Your task to perform on an android device: see sites visited before in the chrome app Image 0: 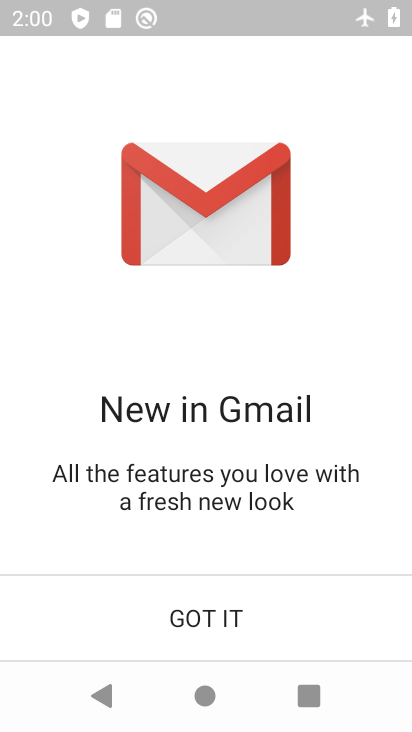
Step 0: click (224, 615)
Your task to perform on an android device: see sites visited before in the chrome app Image 1: 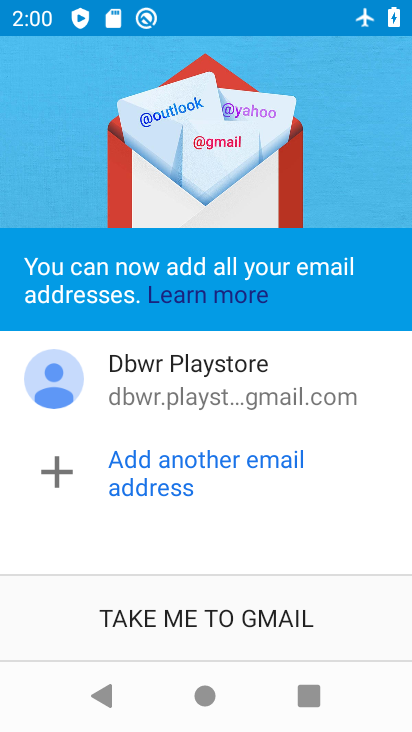
Step 1: press back button
Your task to perform on an android device: see sites visited before in the chrome app Image 2: 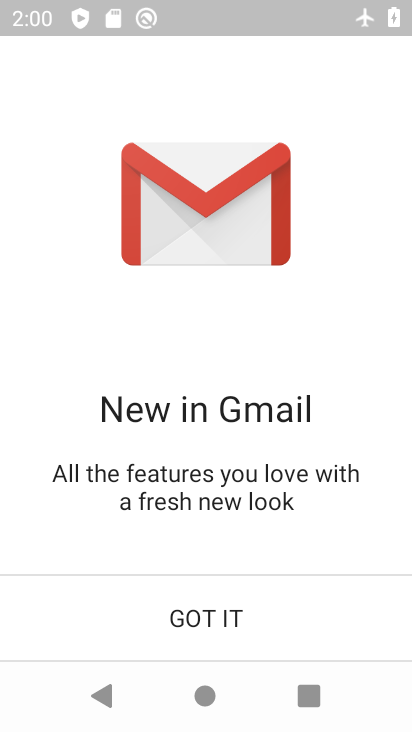
Step 2: click (203, 613)
Your task to perform on an android device: see sites visited before in the chrome app Image 3: 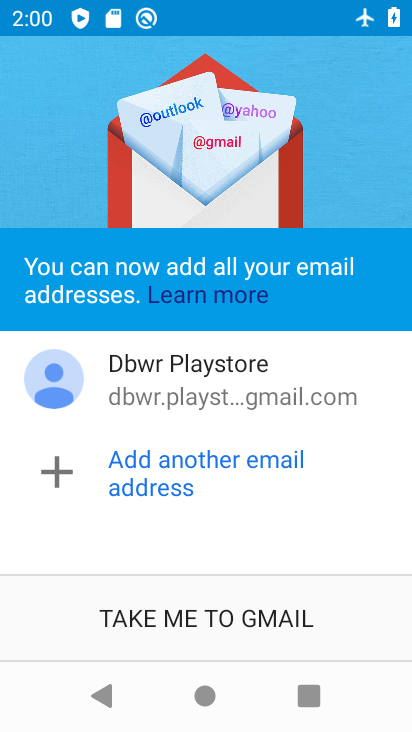
Step 3: press back button
Your task to perform on an android device: see sites visited before in the chrome app Image 4: 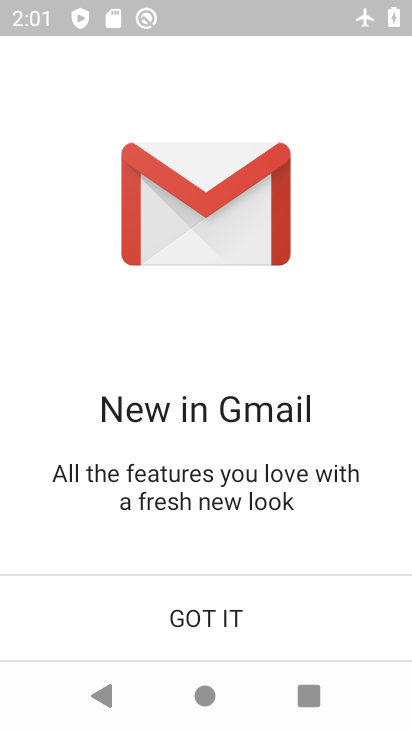
Step 4: click (198, 615)
Your task to perform on an android device: see sites visited before in the chrome app Image 5: 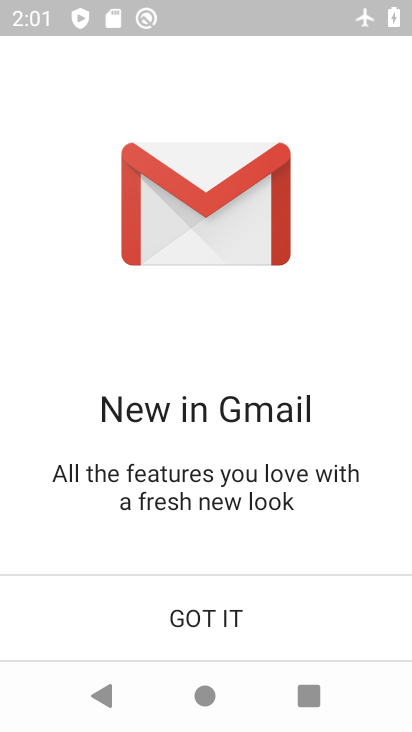
Step 5: click (198, 615)
Your task to perform on an android device: see sites visited before in the chrome app Image 6: 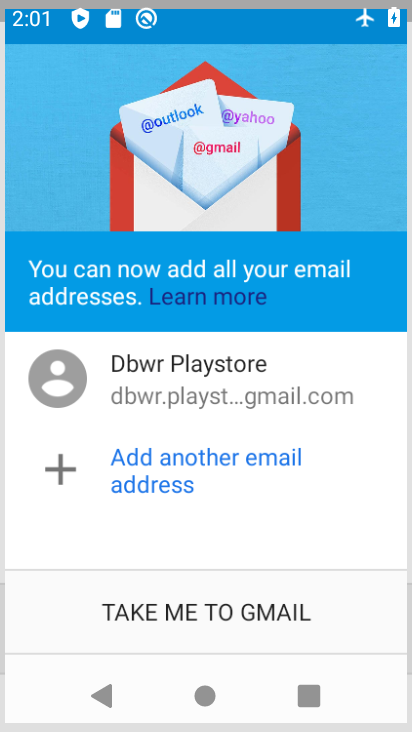
Step 6: click (199, 615)
Your task to perform on an android device: see sites visited before in the chrome app Image 7: 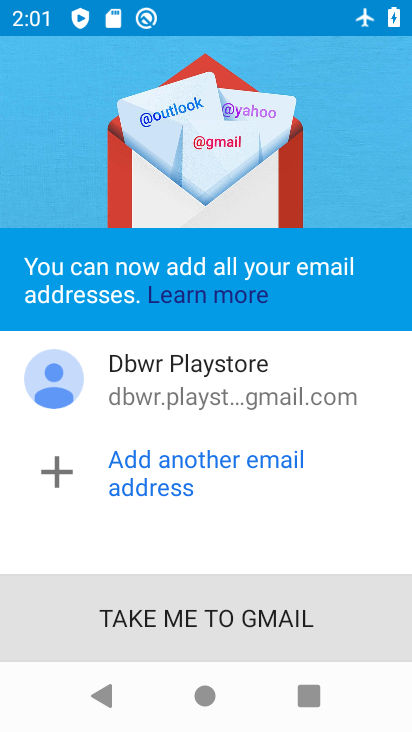
Step 7: click (203, 613)
Your task to perform on an android device: see sites visited before in the chrome app Image 8: 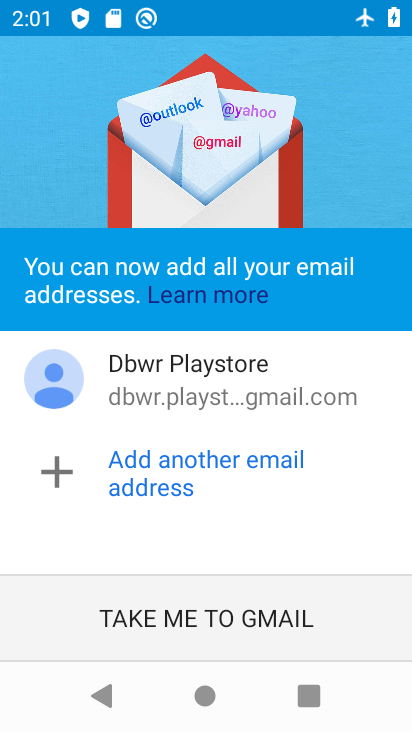
Step 8: click (205, 609)
Your task to perform on an android device: see sites visited before in the chrome app Image 9: 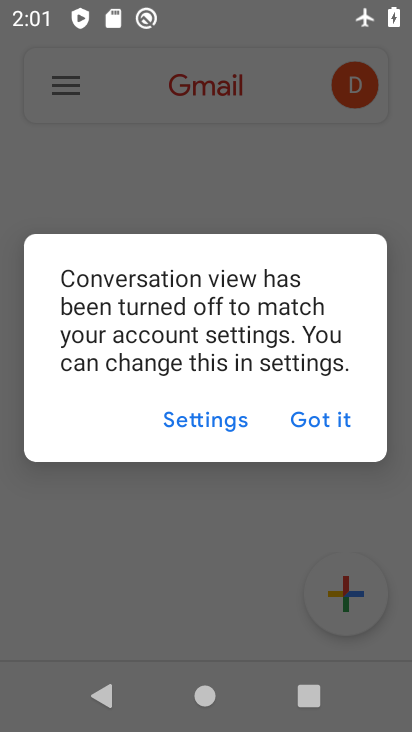
Step 9: click (318, 417)
Your task to perform on an android device: see sites visited before in the chrome app Image 10: 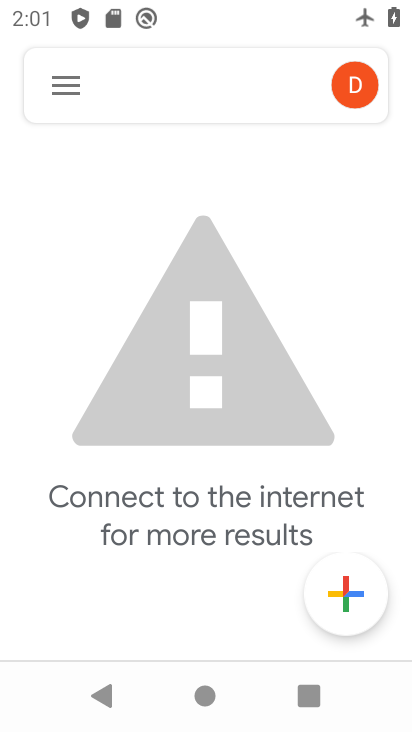
Step 10: press back button
Your task to perform on an android device: see sites visited before in the chrome app Image 11: 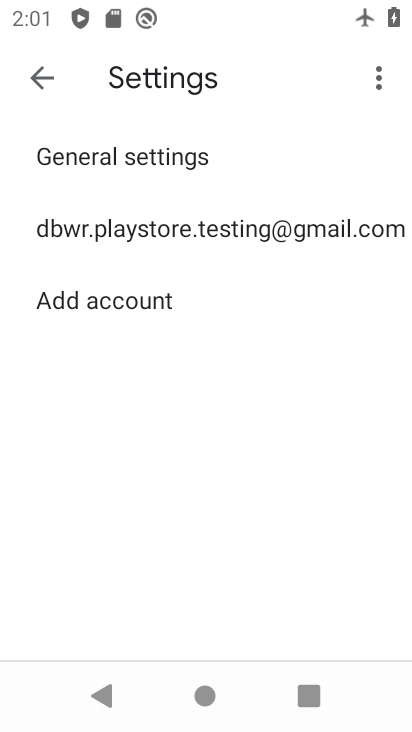
Step 11: press home button
Your task to perform on an android device: see sites visited before in the chrome app Image 12: 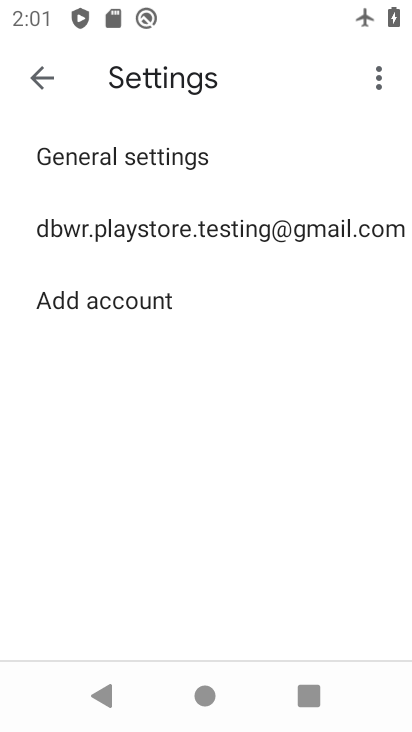
Step 12: press home button
Your task to perform on an android device: see sites visited before in the chrome app Image 13: 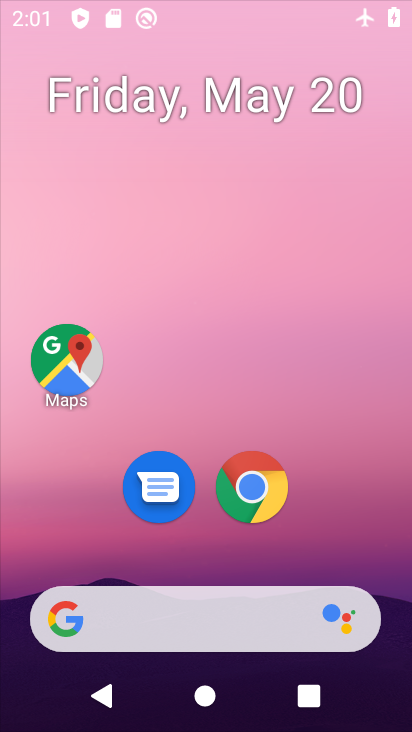
Step 13: press home button
Your task to perform on an android device: see sites visited before in the chrome app Image 14: 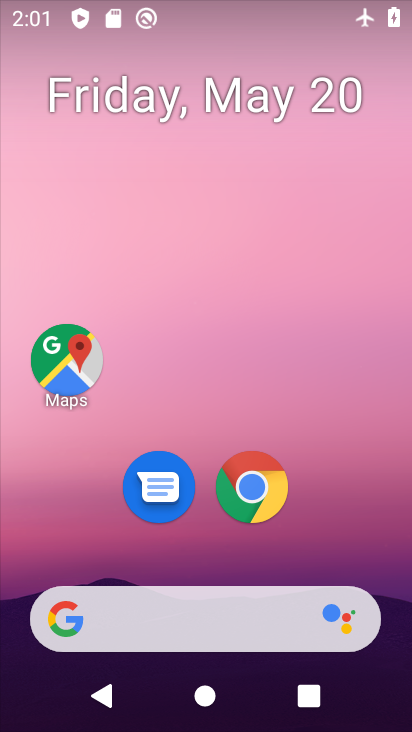
Step 14: drag from (242, 682) to (125, 57)
Your task to perform on an android device: see sites visited before in the chrome app Image 15: 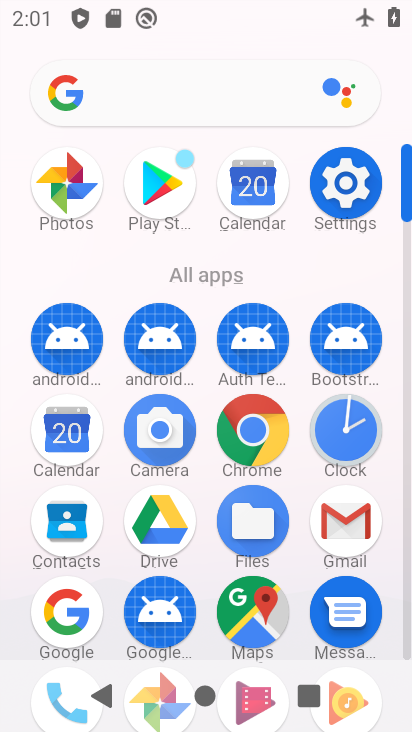
Step 15: click (244, 433)
Your task to perform on an android device: see sites visited before in the chrome app Image 16: 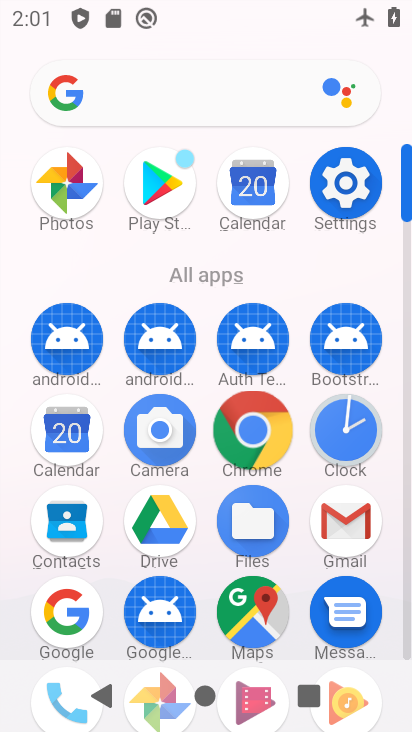
Step 16: click (249, 430)
Your task to perform on an android device: see sites visited before in the chrome app Image 17: 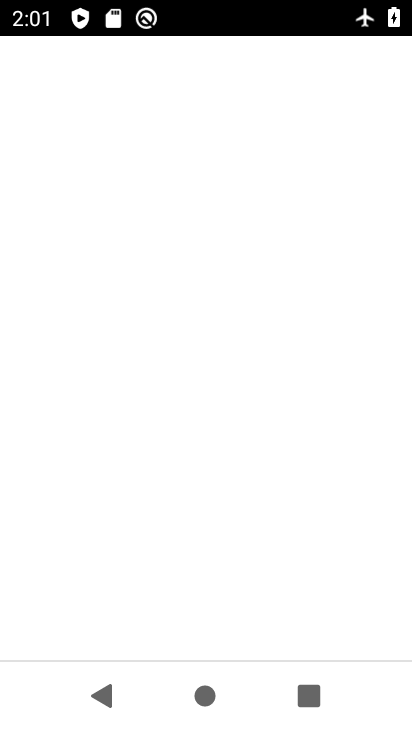
Step 17: click (249, 430)
Your task to perform on an android device: see sites visited before in the chrome app Image 18: 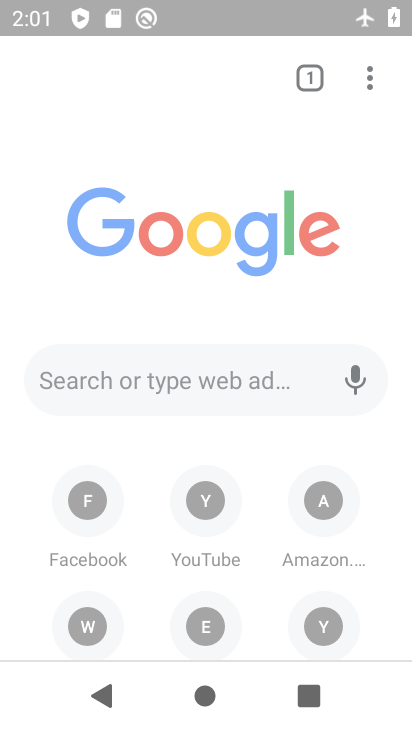
Step 18: click (251, 431)
Your task to perform on an android device: see sites visited before in the chrome app Image 19: 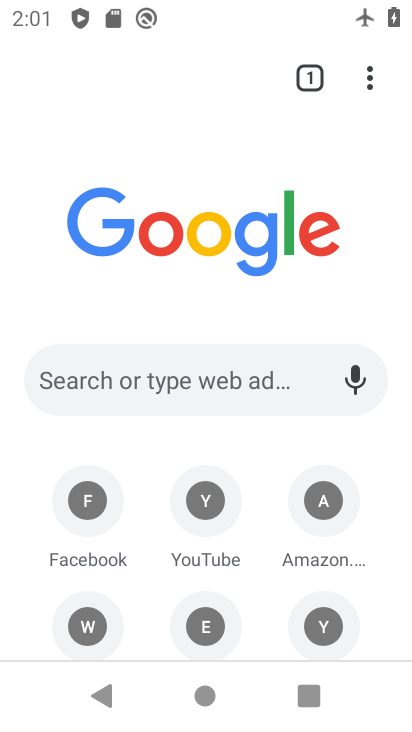
Step 19: drag from (367, 83) to (71, 373)
Your task to perform on an android device: see sites visited before in the chrome app Image 20: 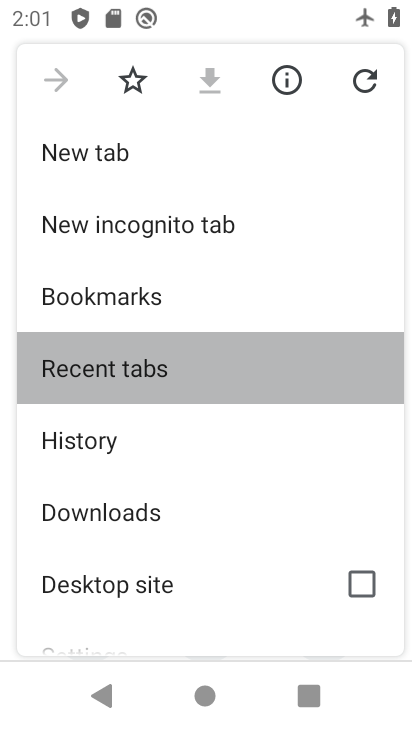
Step 20: click (71, 373)
Your task to perform on an android device: see sites visited before in the chrome app Image 21: 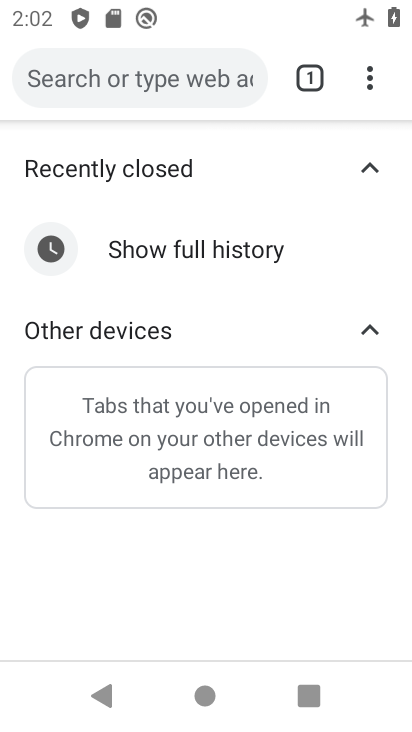
Step 21: task complete